Your task to perform on an android device: Open Google Chrome and click the shortcut for Amazon.com Image 0: 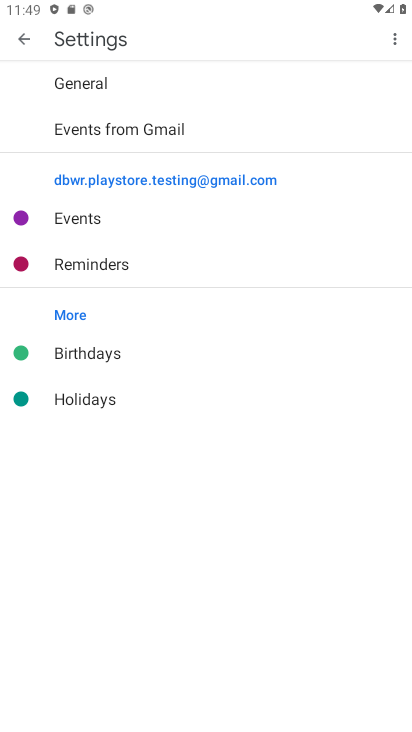
Step 0: press home button
Your task to perform on an android device: Open Google Chrome and click the shortcut for Amazon.com Image 1: 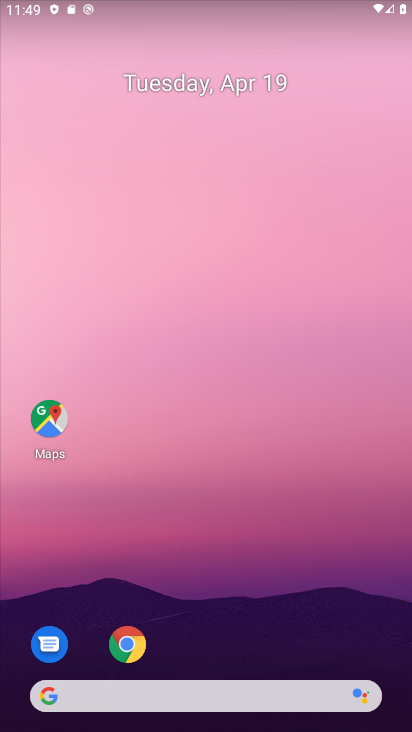
Step 1: click (125, 641)
Your task to perform on an android device: Open Google Chrome and click the shortcut for Amazon.com Image 2: 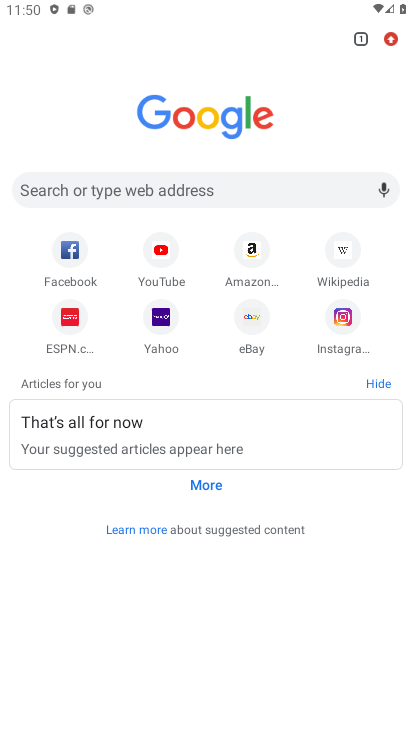
Step 2: click (249, 248)
Your task to perform on an android device: Open Google Chrome and click the shortcut for Amazon.com Image 3: 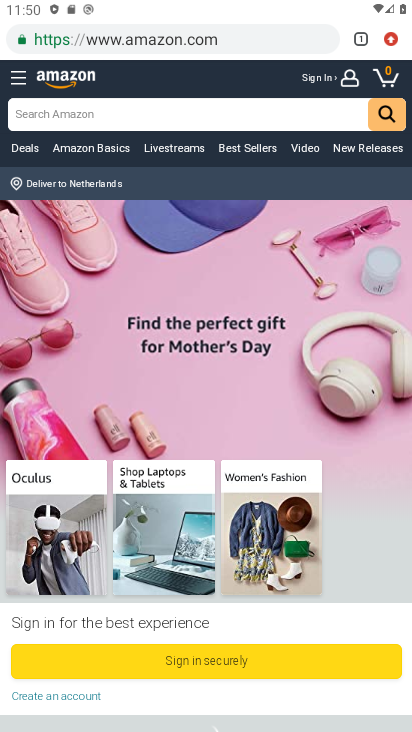
Step 3: task complete